Your task to perform on an android device: change keyboard looks Image 0: 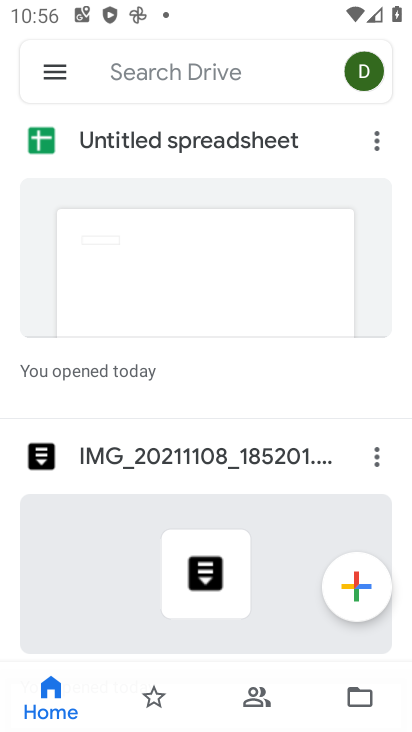
Step 0: press home button
Your task to perform on an android device: change keyboard looks Image 1: 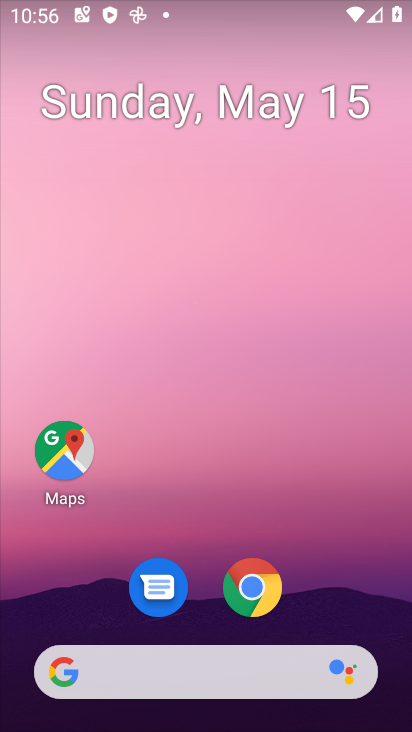
Step 1: drag from (395, 640) to (274, 29)
Your task to perform on an android device: change keyboard looks Image 2: 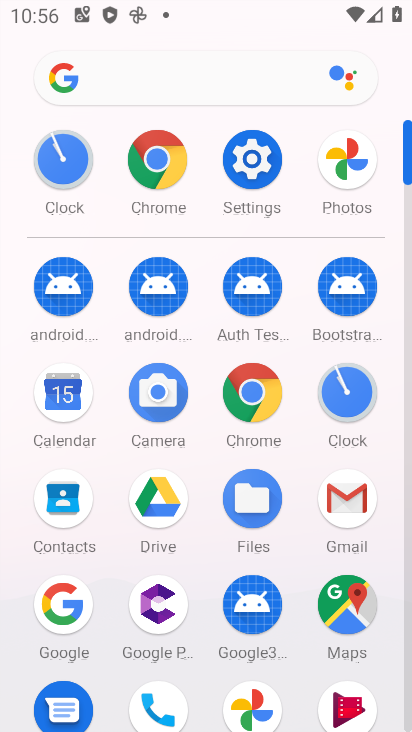
Step 2: click (237, 170)
Your task to perform on an android device: change keyboard looks Image 3: 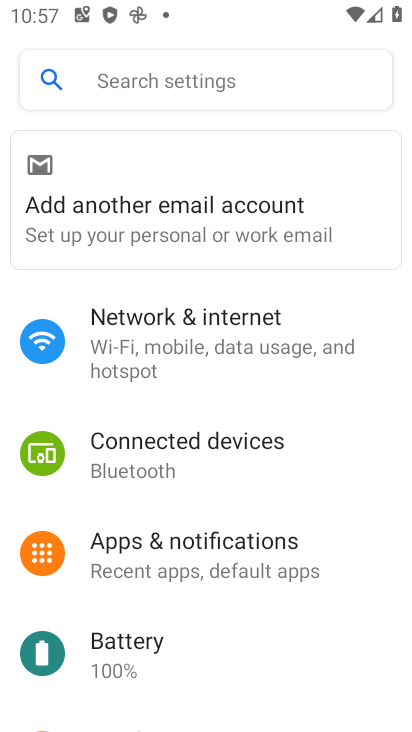
Step 3: drag from (194, 621) to (252, 72)
Your task to perform on an android device: change keyboard looks Image 4: 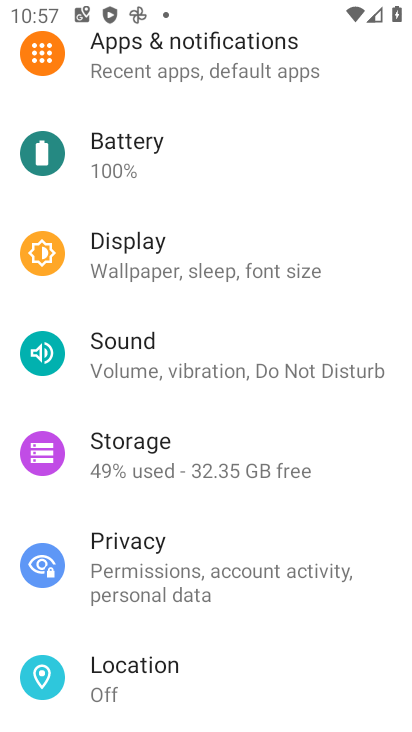
Step 4: drag from (130, 634) to (195, 55)
Your task to perform on an android device: change keyboard looks Image 5: 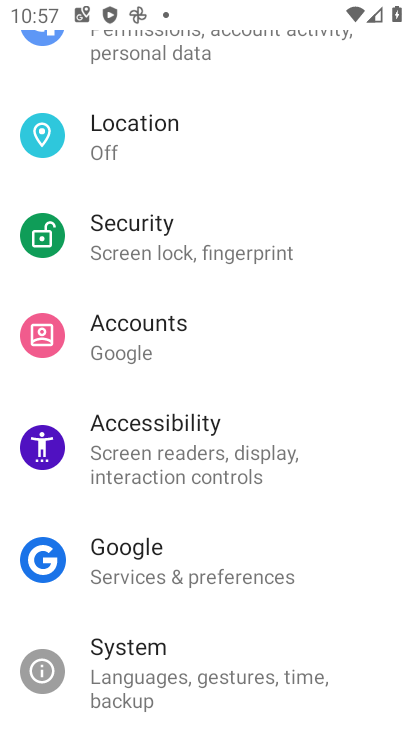
Step 5: click (193, 657)
Your task to perform on an android device: change keyboard looks Image 6: 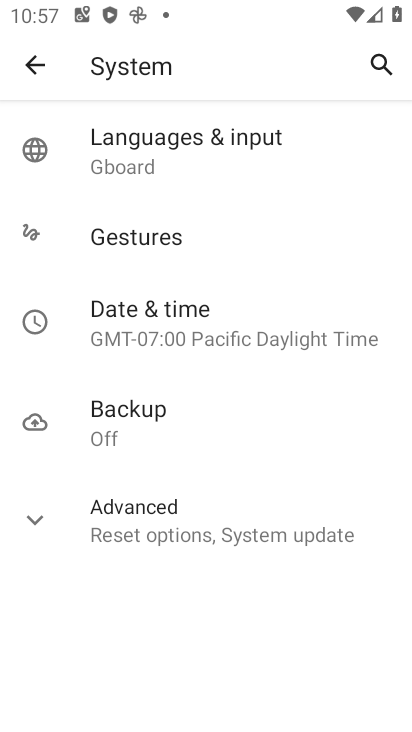
Step 6: click (183, 174)
Your task to perform on an android device: change keyboard looks Image 7: 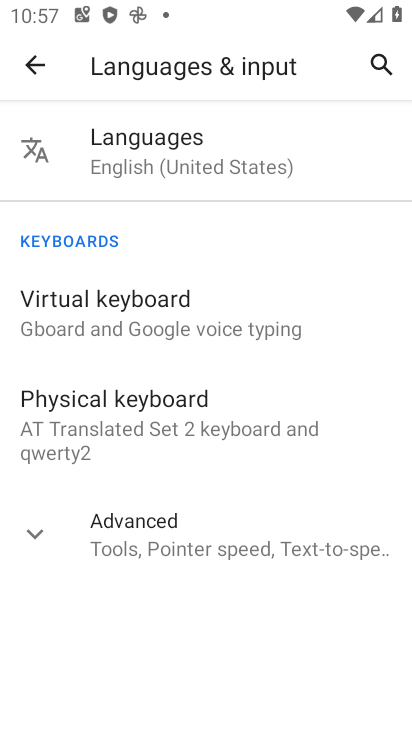
Step 7: click (166, 312)
Your task to perform on an android device: change keyboard looks Image 8: 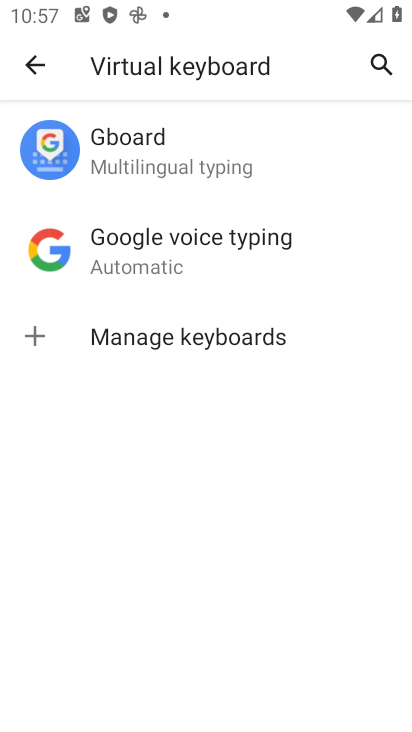
Step 8: click (174, 180)
Your task to perform on an android device: change keyboard looks Image 9: 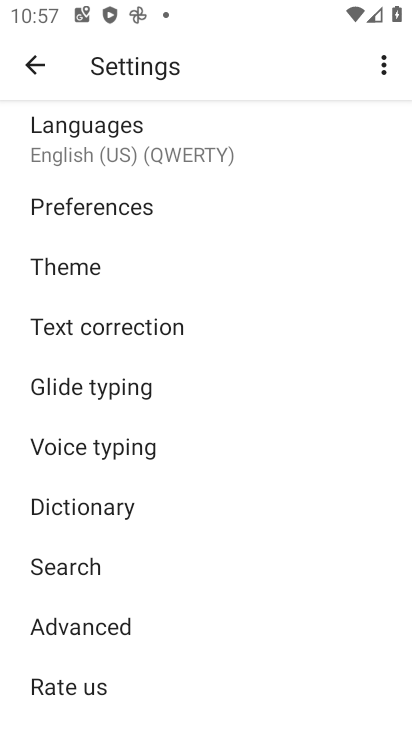
Step 9: click (83, 267)
Your task to perform on an android device: change keyboard looks Image 10: 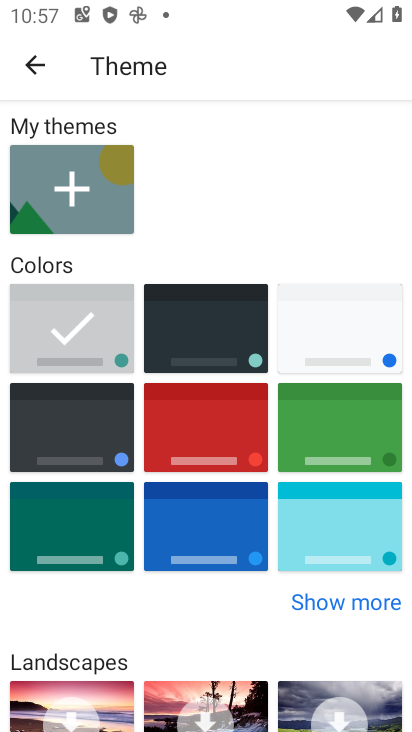
Step 10: click (175, 317)
Your task to perform on an android device: change keyboard looks Image 11: 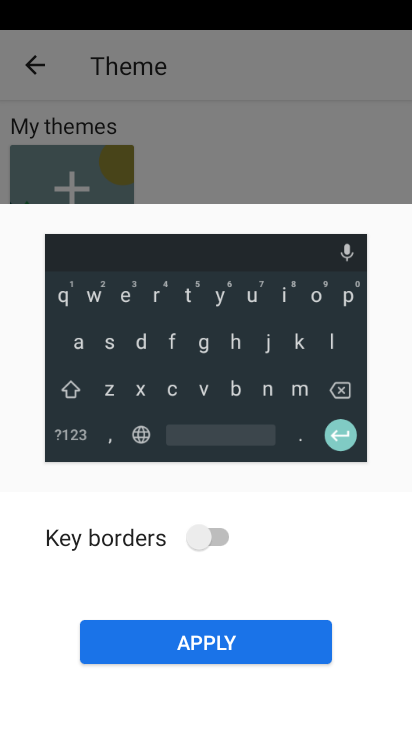
Step 11: click (230, 637)
Your task to perform on an android device: change keyboard looks Image 12: 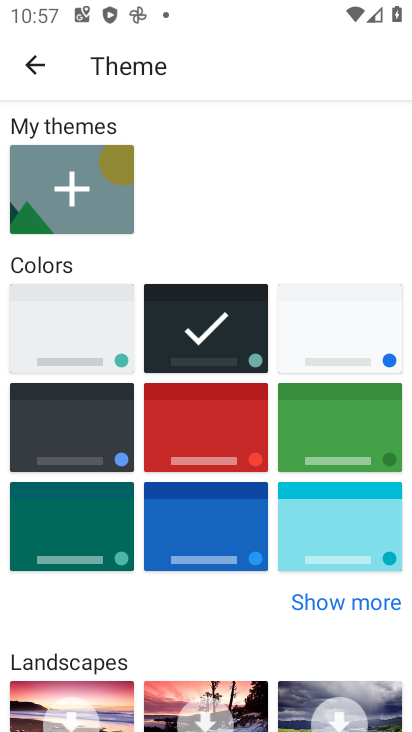
Step 12: task complete